Your task to perform on an android device: Search for seafood restaurants on Google Maps Image 0: 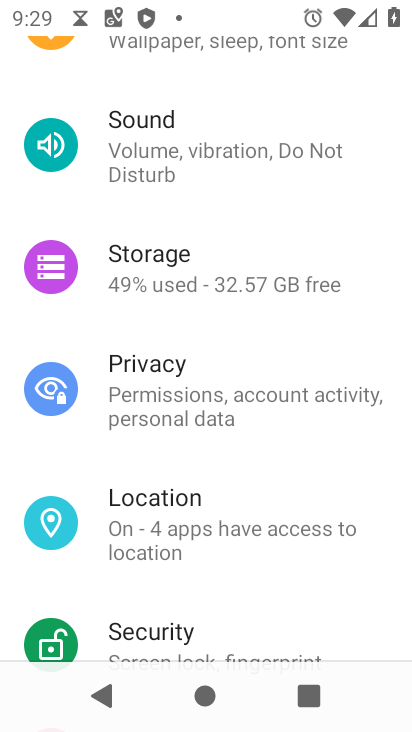
Step 0: press home button
Your task to perform on an android device: Search for seafood restaurants on Google Maps Image 1: 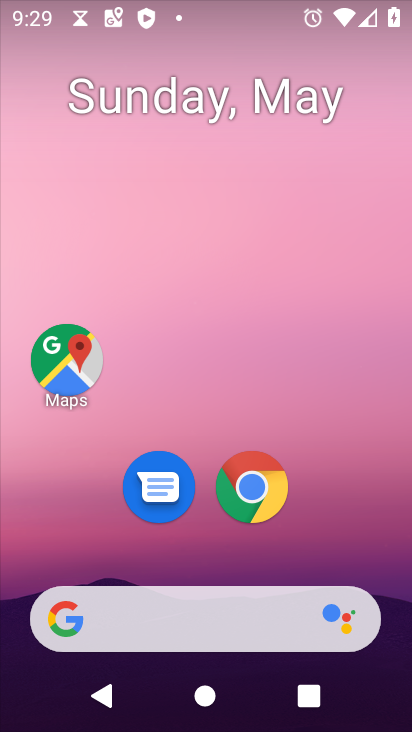
Step 1: click (89, 349)
Your task to perform on an android device: Search for seafood restaurants on Google Maps Image 2: 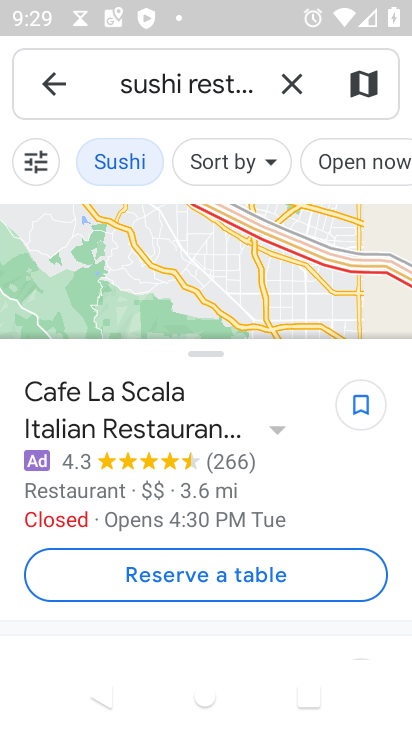
Step 2: click (297, 98)
Your task to perform on an android device: Search for seafood restaurants on Google Maps Image 3: 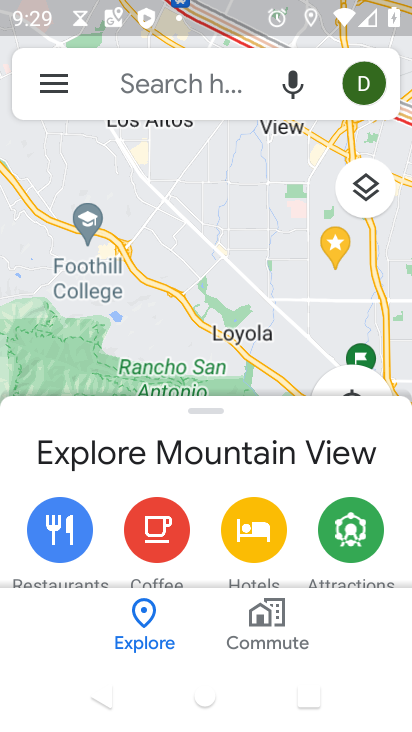
Step 3: click (145, 55)
Your task to perform on an android device: Search for seafood restaurants on Google Maps Image 4: 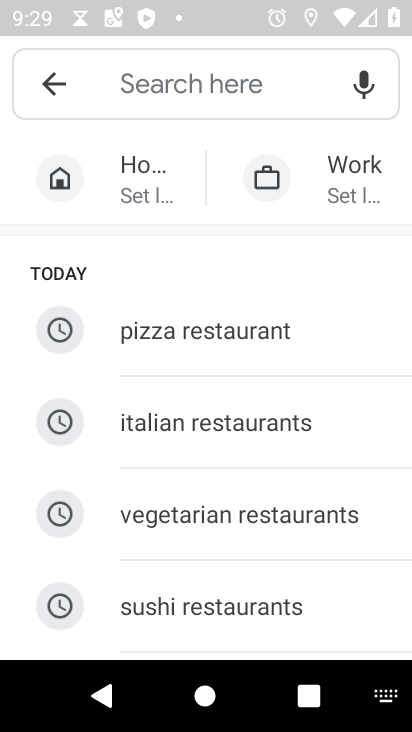
Step 4: drag from (305, 624) to (265, 278)
Your task to perform on an android device: Search for seafood restaurants on Google Maps Image 5: 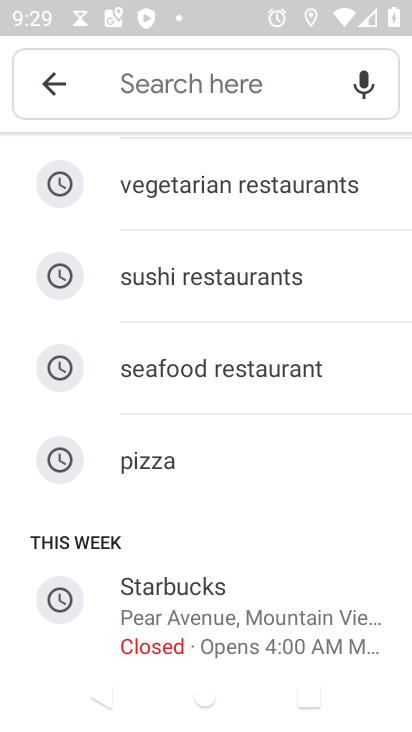
Step 5: click (196, 364)
Your task to perform on an android device: Search for seafood restaurants on Google Maps Image 6: 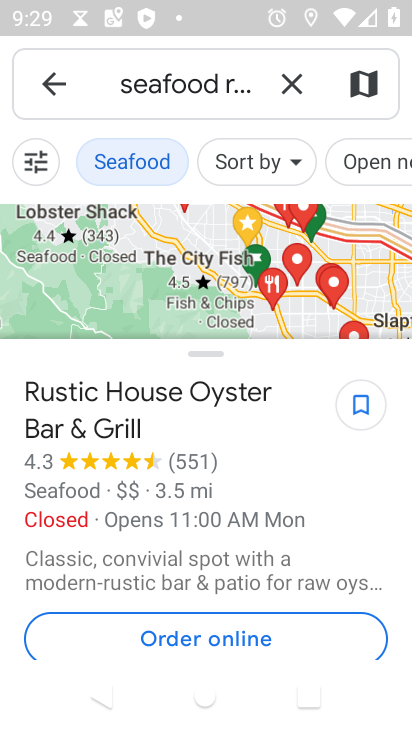
Step 6: task complete